Your task to perform on an android device: Show me productivity apps on the Play Store Image 0: 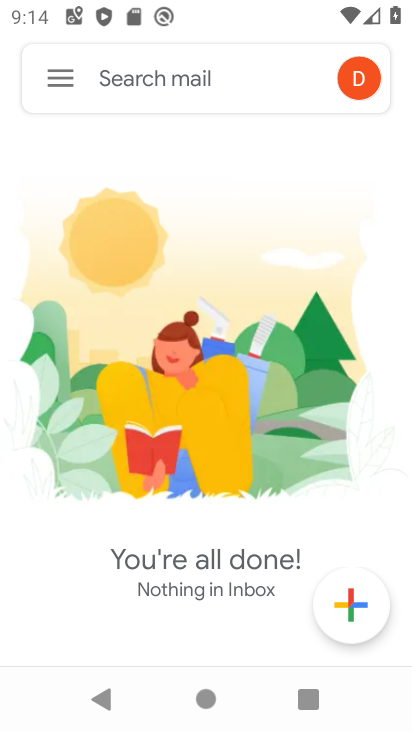
Step 0: press home button
Your task to perform on an android device: Show me productivity apps on the Play Store Image 1: 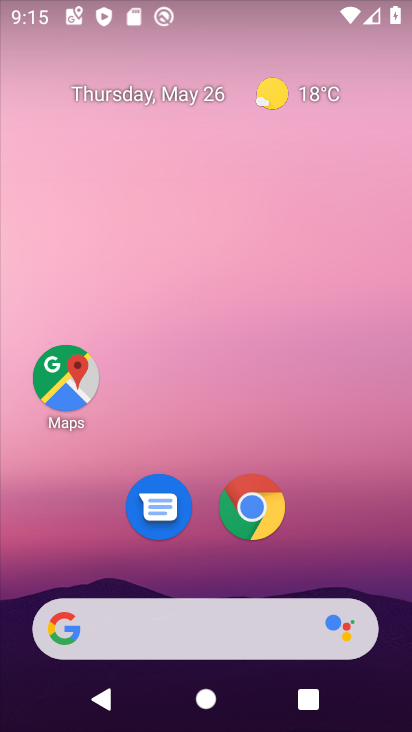
Step 1: drag from (258, 645) to (248, 100)
Your task to perform on an android device: Show me productivity apps on the Play Store Image 2: 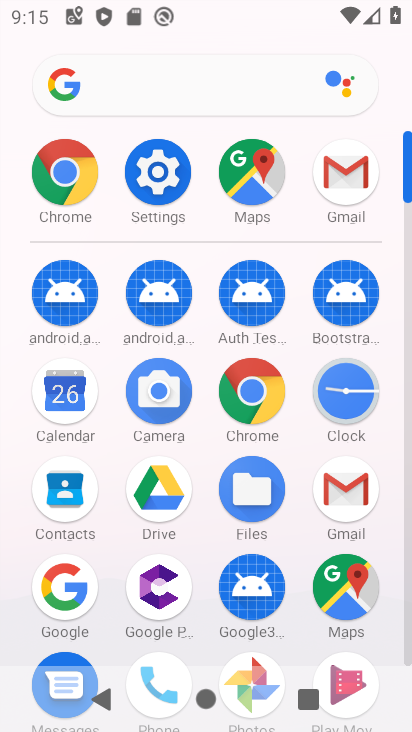
Step 2: drag from (112, 527) to (125, 316)
Your task to perform on an android device: Show me productivity apps on the Play Store Image 3: 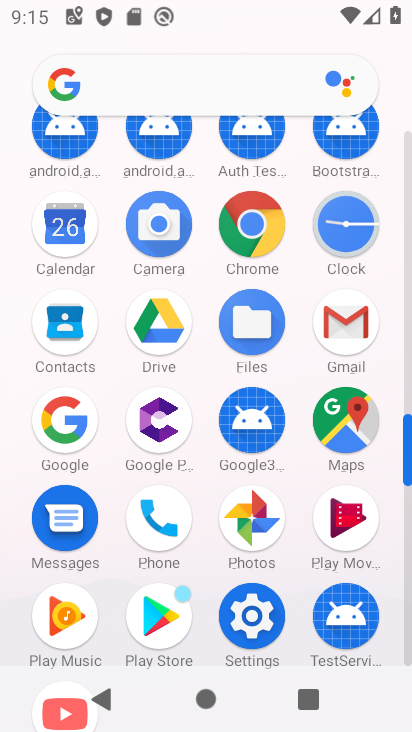
Step 3: click (141, 615)
Your task to perform on an android device: Show me productivity apps on the Play Store Image 4: 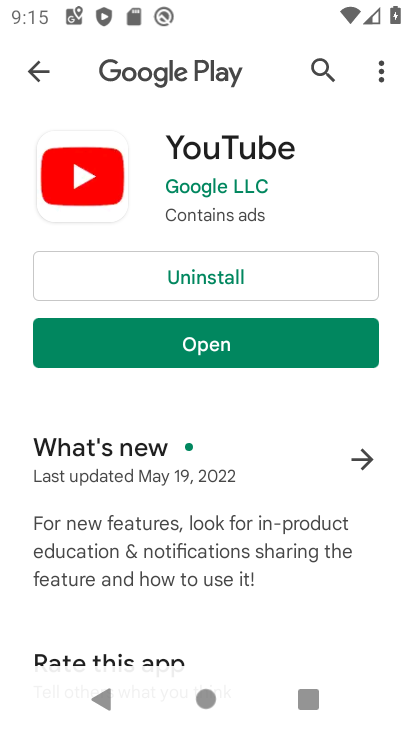
Step 4: click (322, 68)
Your task to perform on an android device: Show me productivity apps on the Play Store Image 5: 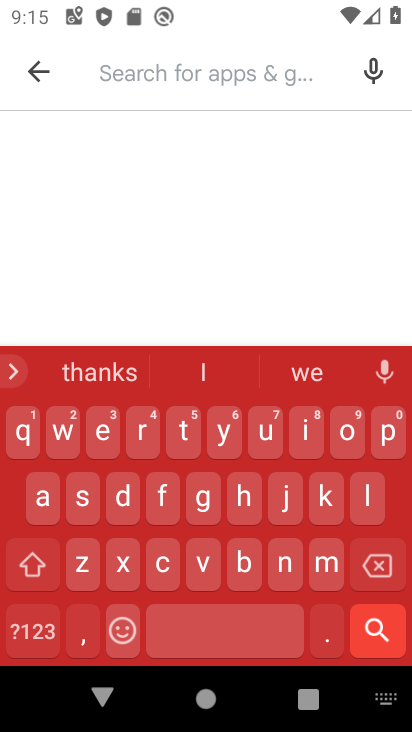
Step 5: click (381, 440)
Your task to perform on an android device: Show me productivity apps on the Play Store Image 6: 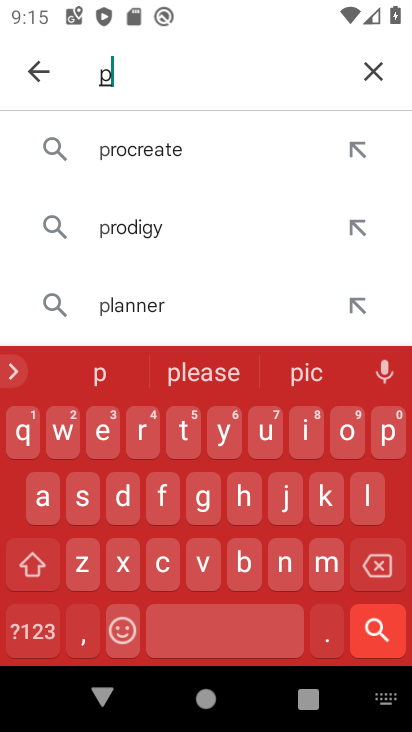
Step 6: click (141, 448)
Your task to perform on an android device: Show me productivity apps on the Play Store Image 7: 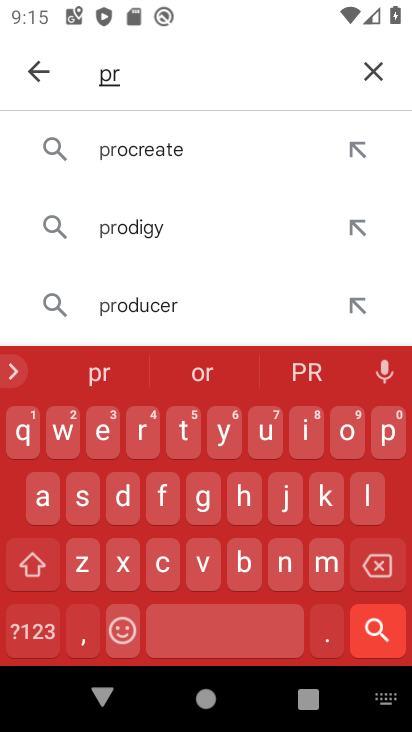
Step 7: click (341, 440)
Your task to perform on an android device: Show me productivity apps on the Play Store Image 8: 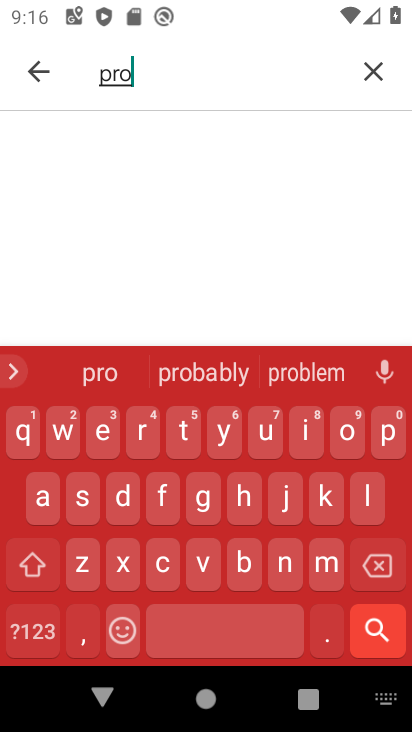
Step 8: click (125, 501)
Your task to perform on an android device: Show me productivity apps on the Play Store Image 9: 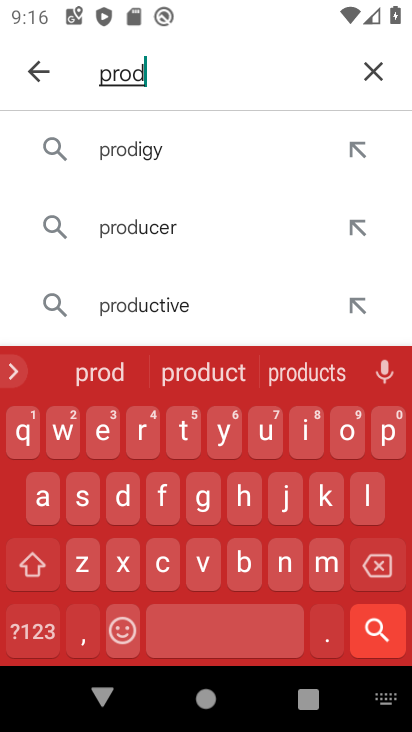
Step 9: click (264, 439)
Your task to perform on an android device: Show me productivity apps on the Play Store Image 10: 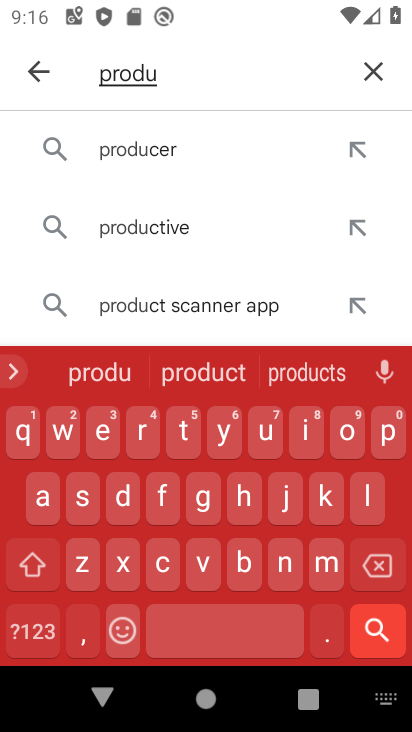
Step 10: click (166, 564)
Your task to perform on an android device: Show me productivity apps on the Play Store Image 11: 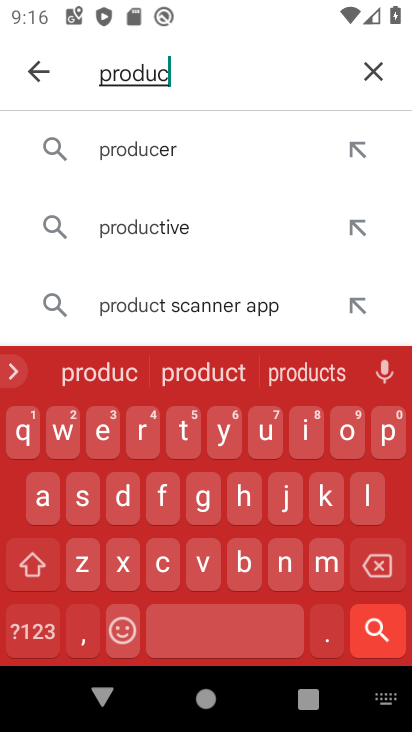
Step 11: click (180, 431)
Your task to perform on an android device: Show me productivity apps on the Play Store Image 12: 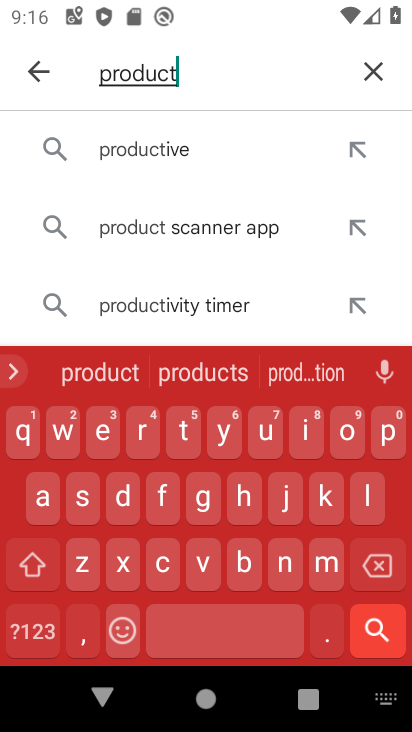
Step 12: click (303, 426)
Your task to perform on an android device: Show me productivity apps on the Play Store Image 13: 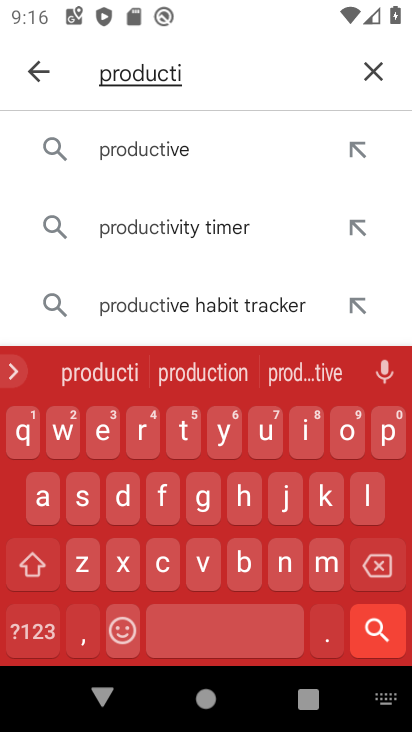
Step 13: click (293, 370)
Your task to perform on an android device: Show me productivity apps on the Play Store Image 14: 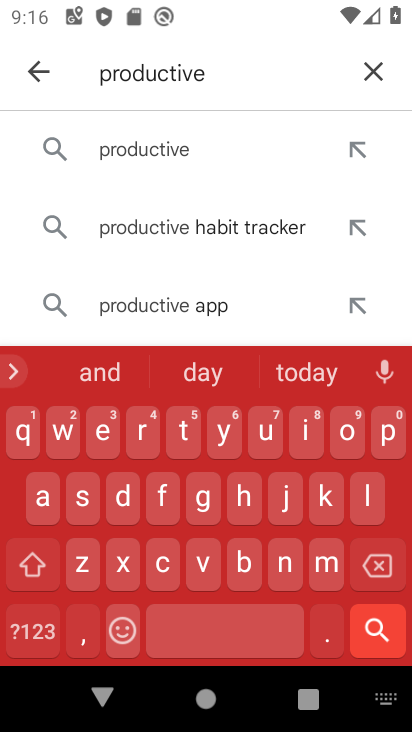
Step 14: click (36, 508)
Your task to perform on an android device: Show me productivity apps on the Play Store Image 15: 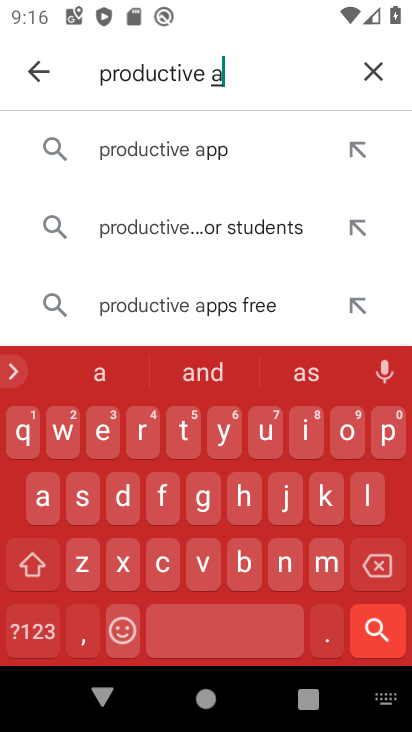
Step 15: click (221, 161)
Your task to perform on an android device: Show me productivity apps on the Play Store Image 16: 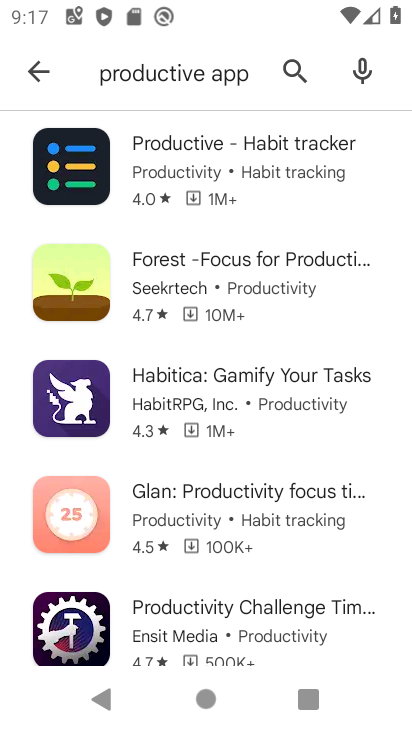
Step 16: task complete